Your task to perform on an android device: allow cookies in the chrome app Image 0: 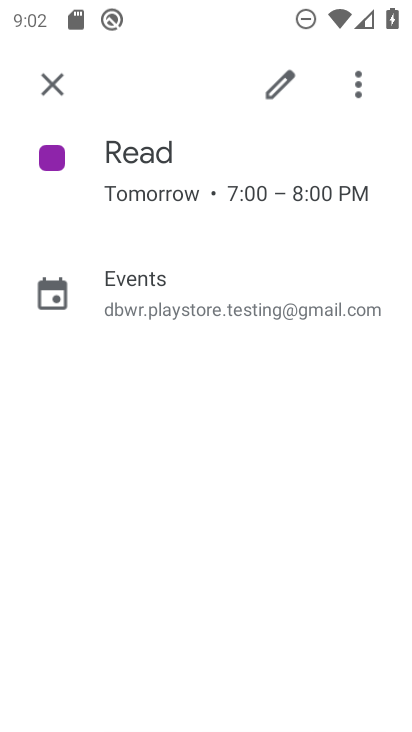
Step 0: press home button
Your task to perform on an android device: allow cookies in the chrome app Image 1: 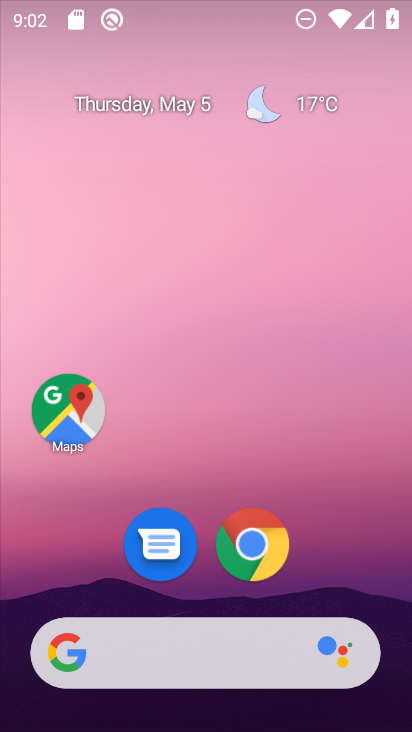
Step 1: drag from (391, 661) to (313, 44)
Your task to perform on an android device: allow cookies in the chrome app Image 2: 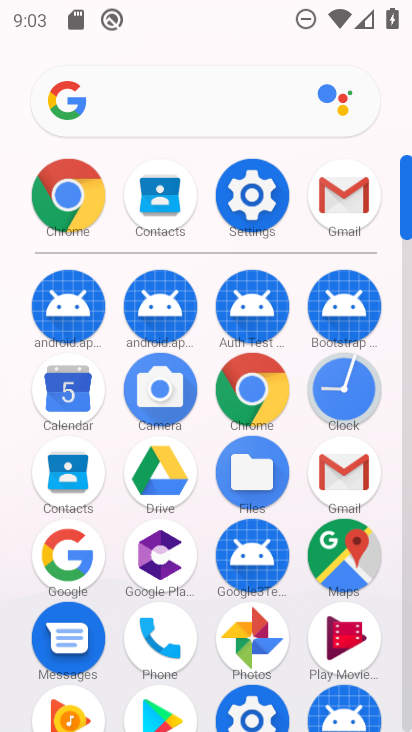
Step 2: click (276, 393)
Your task to perform on an android device: allow cookies in the chrome app Image 3: 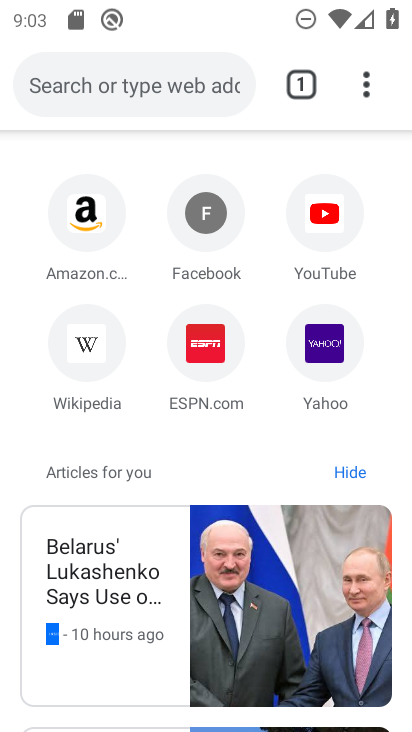
Step 3: click (368, 80)
Your task to perform on an android device: allow cookies in the chrome app Image 4: 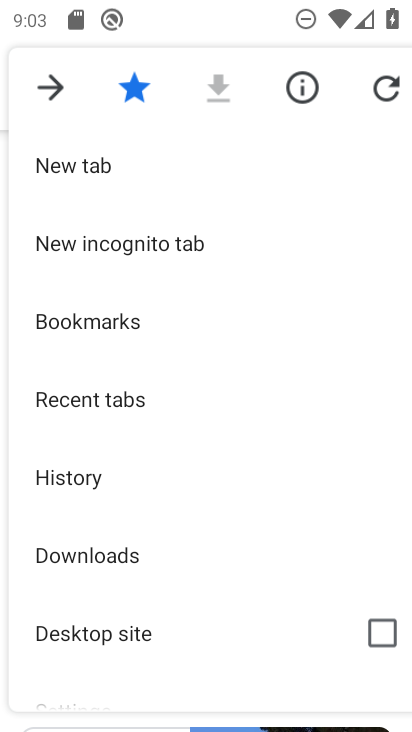
Step 4: drag from (70, 664) to (113, 414)
Your task to perform on an android device: allow cookies in the chrome app Image 5: 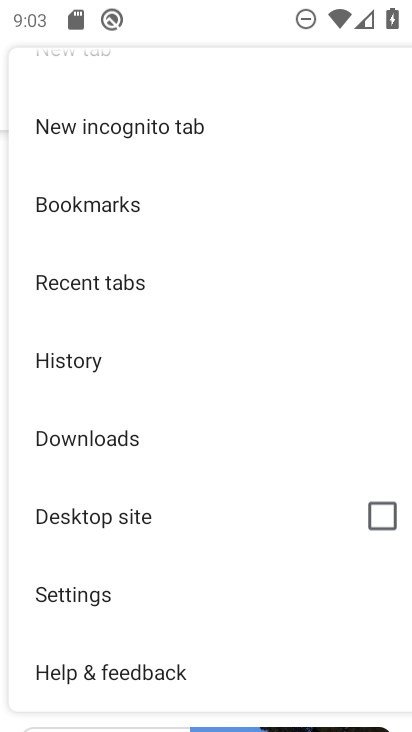
Step 5: click (142, 587)
Your task to perform on an android device: allow cookies in the chrome app Image 6: 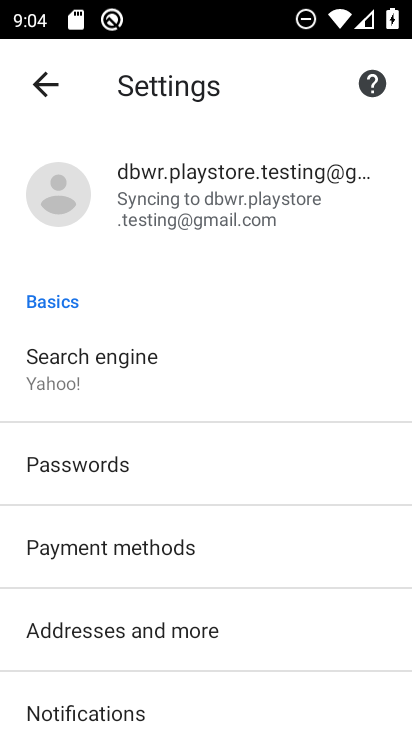
Step 6: drag from (182, 661) to (175, 335)
Your task to perform on an android device: allow cookies in the chrome app Image 7: 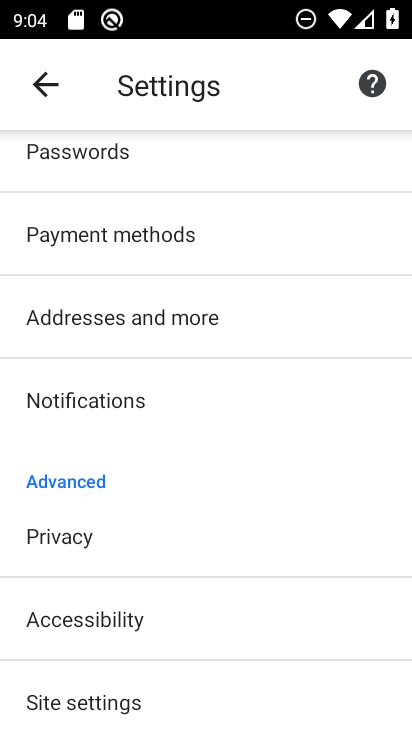
Step 7: click (168, 693)
Your task to perform on an android device: allow cookies in the chrome app Image 8: 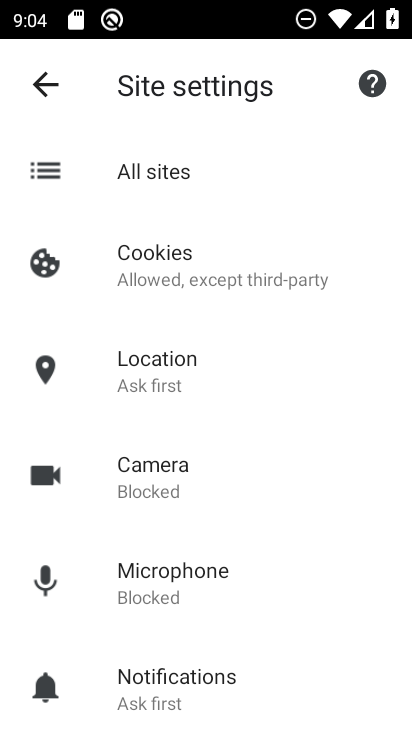
Step 8: click (236, 247)
Your task to perform on an android device: allow cookies in the chrome app Image 9: 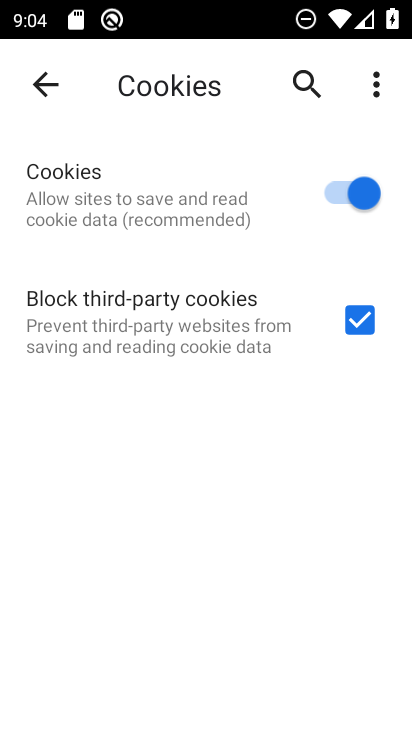
Step 9: task complete